Your task to perform on an android device: Open Youtube and go to the subscriptions tab Image 0: 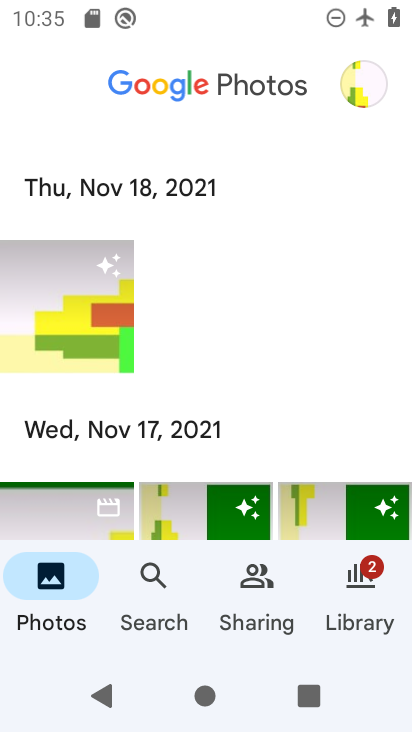
Step 0: press home button
Your task to perform on an android device: Open Youtube and go to the subscriptions tab Image 1: 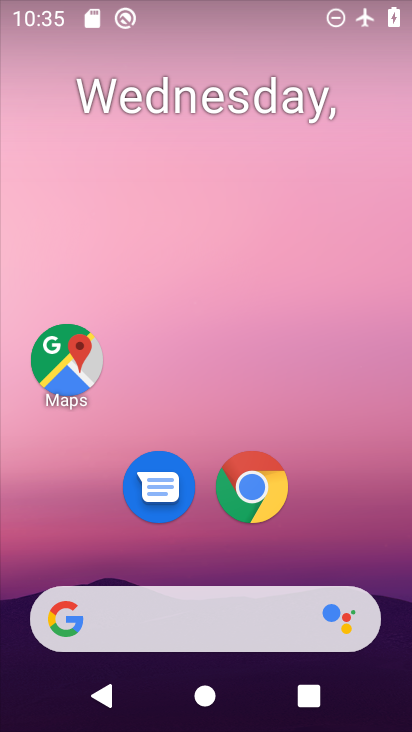
Step 1: drag from (208, 403) to (178, 82)
Your task to perform on an android device: Open Youtube and go to the subscriptions tab Image 2: 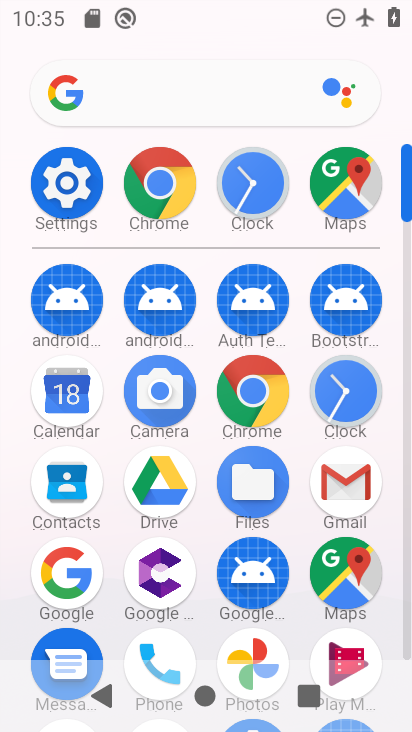
Step 2: drag from (208, 615) to (191, 285)
Your task to perform on an android device: Open Youtube and go to the subscriptions tab Image 3: 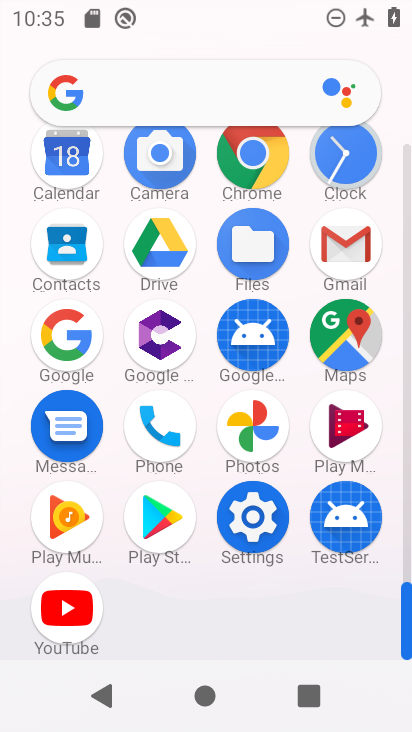
Step 3: click (56, 610)
Your task to perform on an android device: Open Youtube and go to the subscriptions tab Image 4: 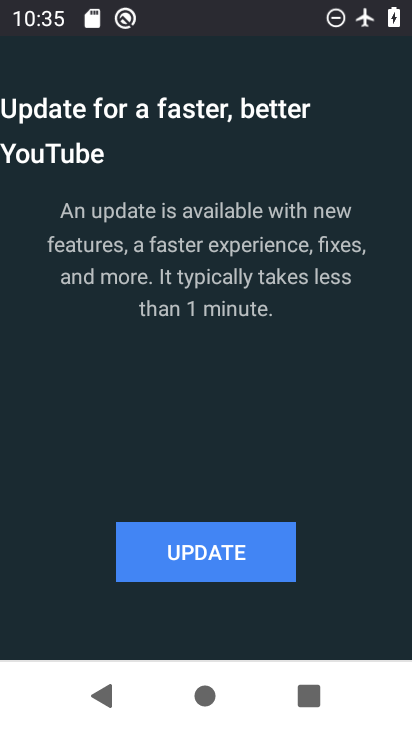
Step 4: click (211, 556)
Your task to perform on an android device: Open Youtube and go to the subscriptions tab Image 5: 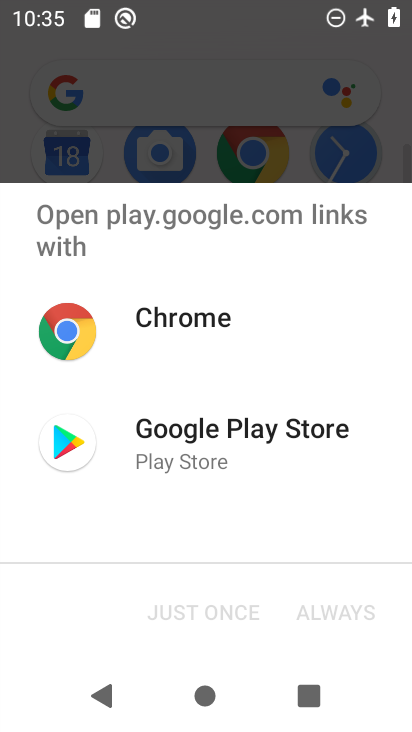
Step 5: click (193, 460)
Your task to perform on an android device: Open Youtube and go to the subscriptions tab Image 6: 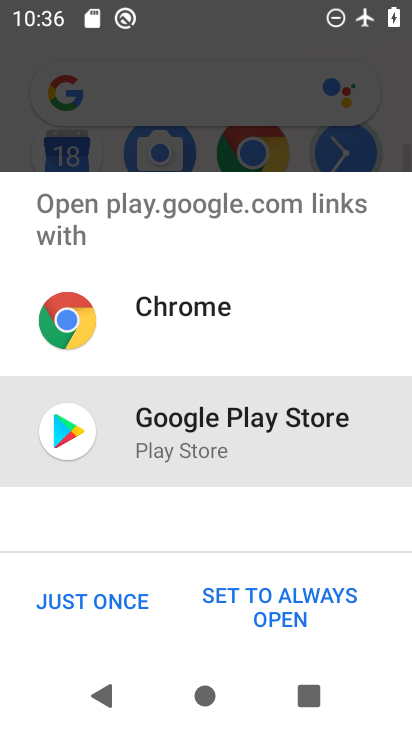
Step 6: click (83, 593)
Your task to perform on an android device: Open Youtube and go to the subscriptions tab Image 7: 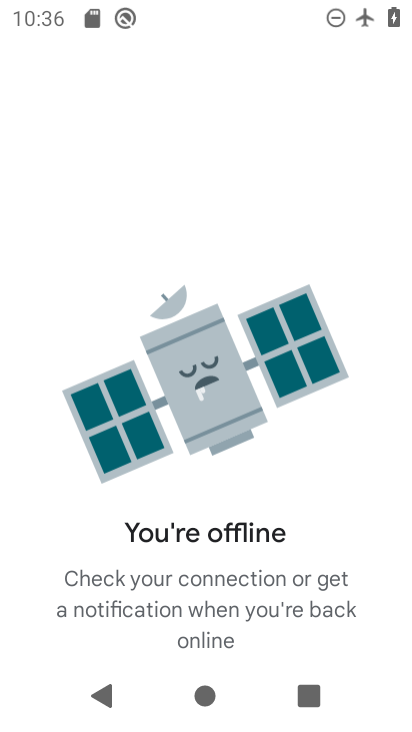
Step 7: task complete